Your task to perform on an android device: Open Reddit.com Image 0: 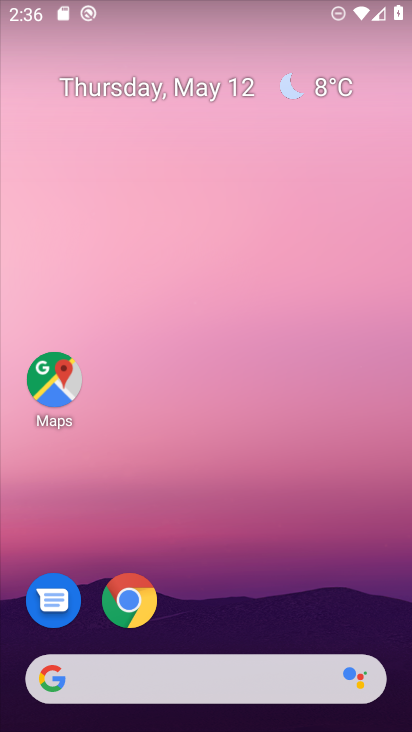
Step 0: click (127, 596)
Your task to perform on an android device: Open Reddit.com Image 1: 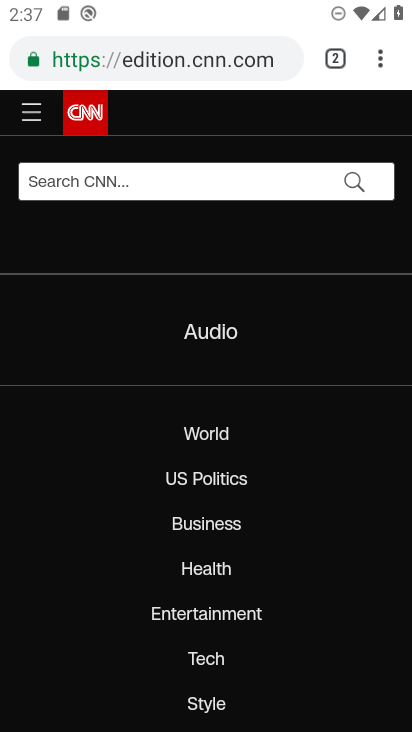
Step 1: click (379, 65)
Your task to perform on an android device: Open Reddit.com Image 2: 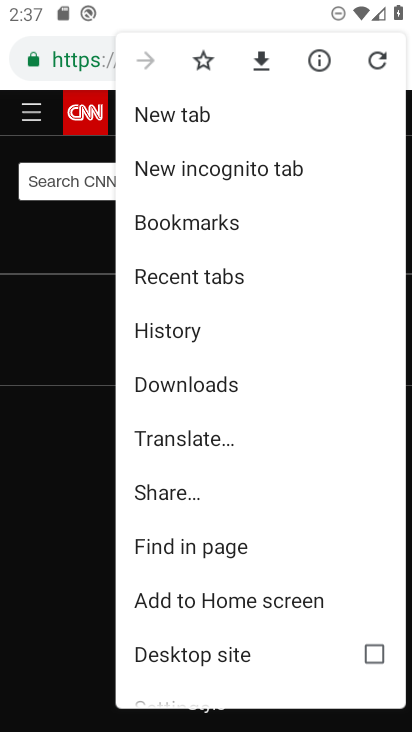
Step 2: click (162, 110)
Your task to perform on an android device: Open Reddit.com Image 3: 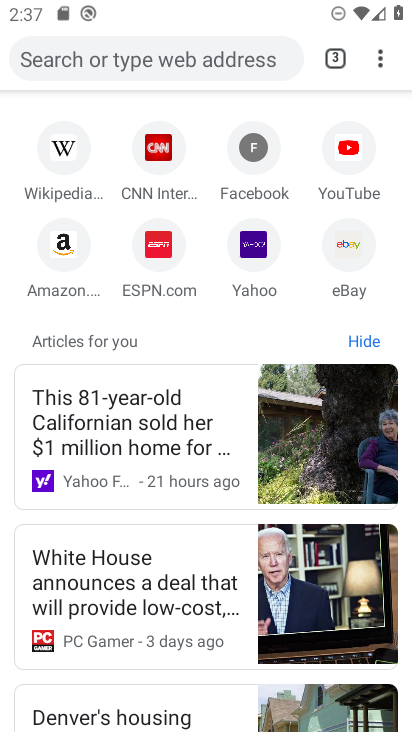
Step 3: click (122, 52)
Your task to perform on an android device: Open Reddit.com Image 4: 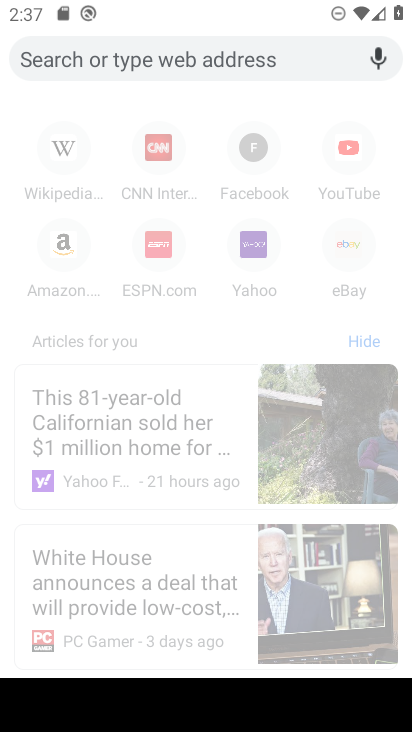
Step 4: type "Reddit.com"
Your task to perform on an android device: Open Reddit.com Image 5: 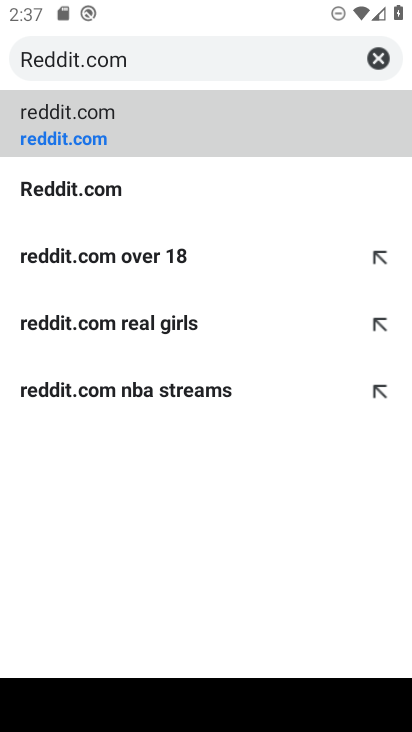
Step 5: click (124, 116)
Your task to perform on an android device: Open Reddit.com Image 6: 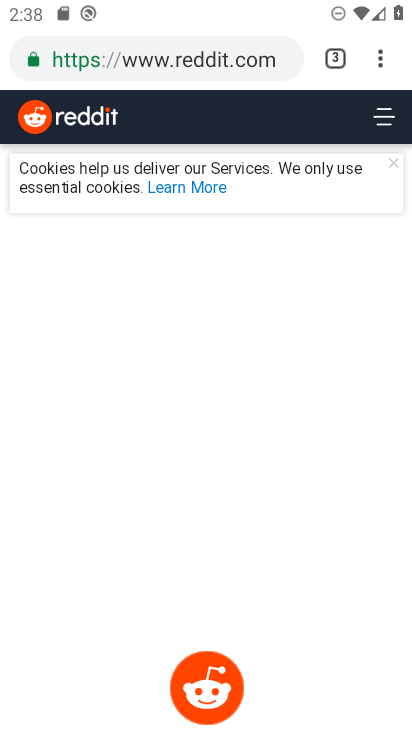
Step 6: task complete